Your task to perform on an android device: create a new album in the google photos Image 0: 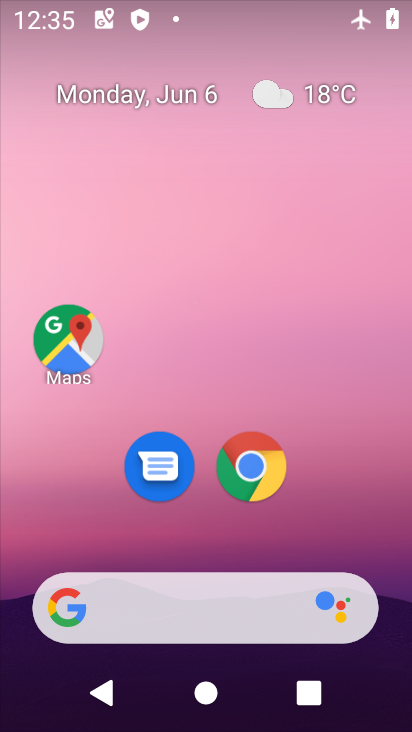
Step 0: drag from (312, 364) to (238, 12)
Your task to perform on an android device: create a new album in the google photos Image 1: 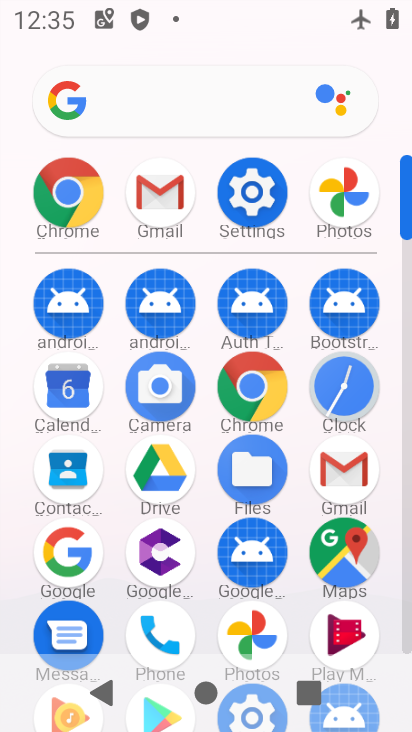
Step 1: drag from (6, 582) to (12, 246)
Your task to perform on an android device: create a new album in the google photos Image 2: 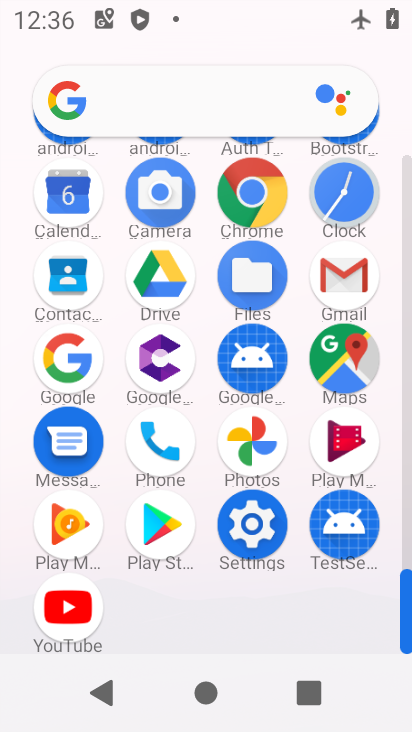
Step 2: click (248, 432)
Your task to perform on an android device: create a new album in the google photos Image 3: 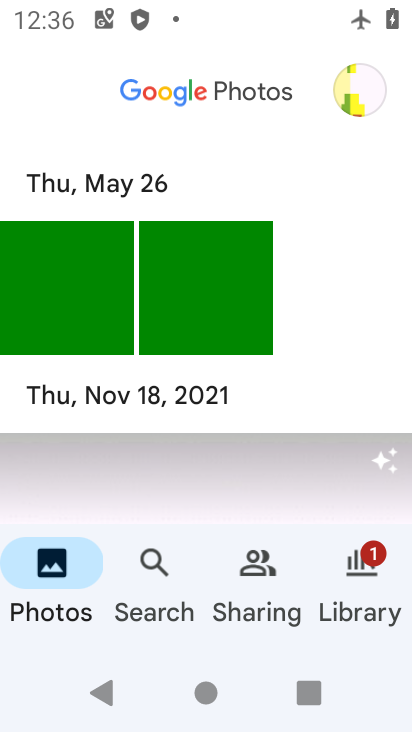
Step 3: task complete